Your task to perform on an android device: Open Yahoo.com Image 0: 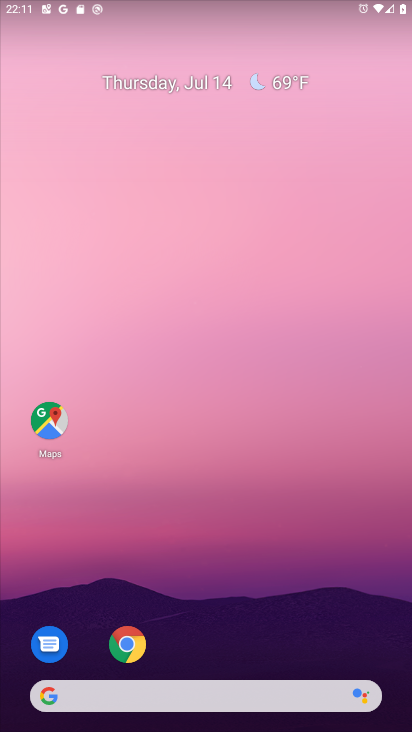
Step 0: click (135, 645)
Your task to perform on an android device: Open Yahoo.com Image 1: 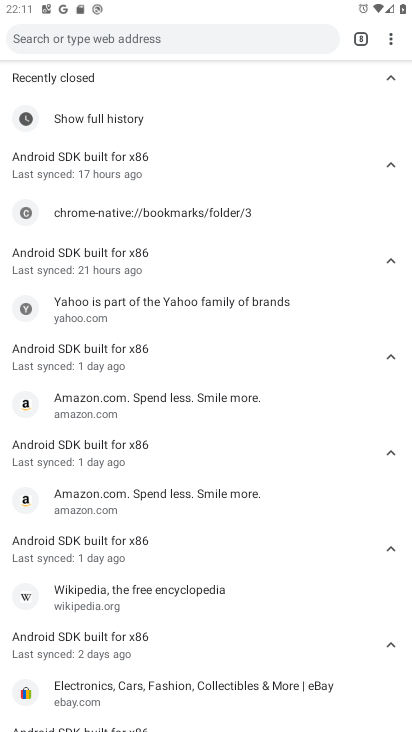
Step 1: click (360, 36)
Your task to perform on an android device: Open Yahoo.com Image 2: 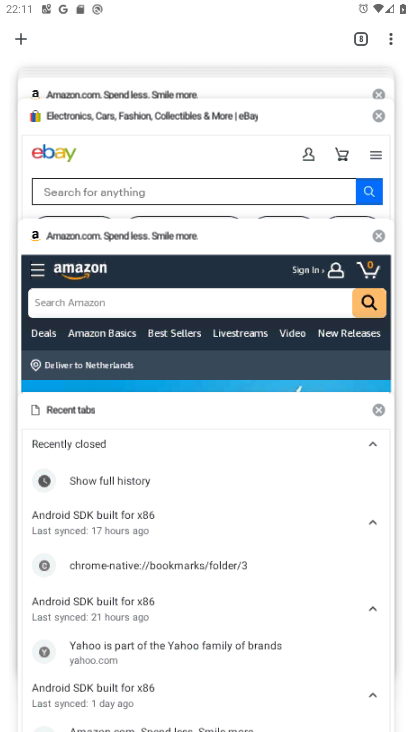
Step 2: click (21, 44)
Your task to perform on an android device: Open Yahoo.com Image 3: 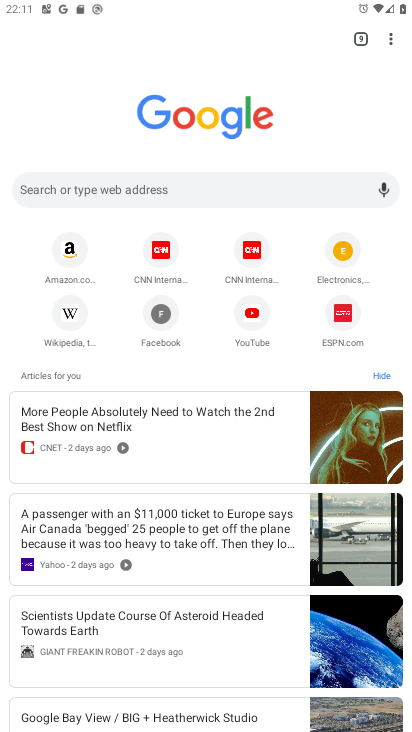
Step 3: click (91, 185)
Your task to perform on an android device: Open Yahoo.com Image 4: 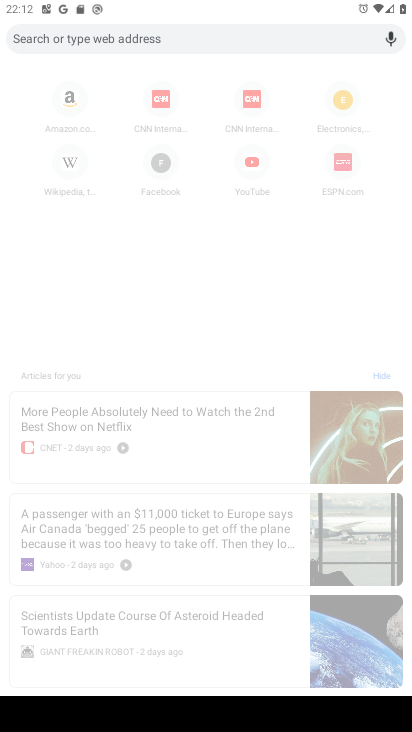
Step 4: type "yahoo"
Your task to perform on an android device: Open Yahoo.com Image 5: 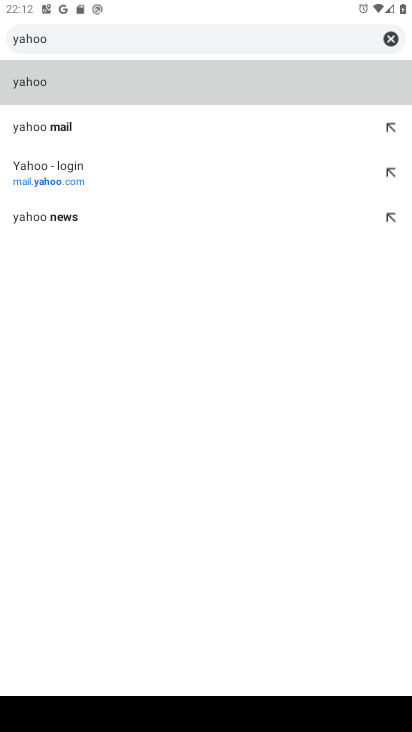
Step 5: click (109, 167)
Your task to perform on an android device: Open Yahoo.com Image 6: 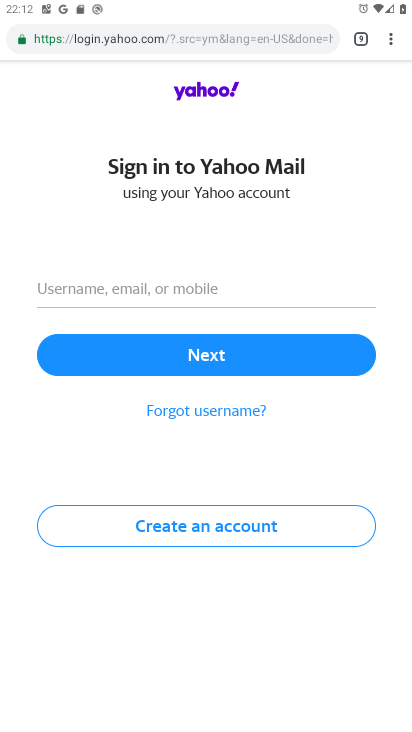
Step 6: task complete